Your task to perform on an android device: Show me productivity apps on the Play Store Image 0: 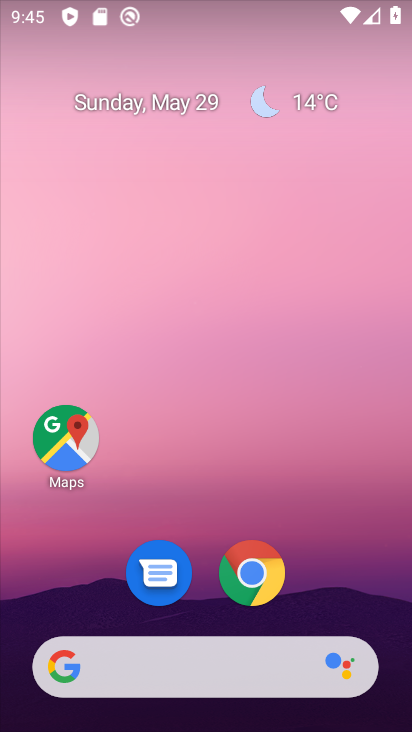
Step 0: drag from (187, 595) to (228, 8)
Your task to perform on an android device: Show me productivity apps on the Play Store Image 1: 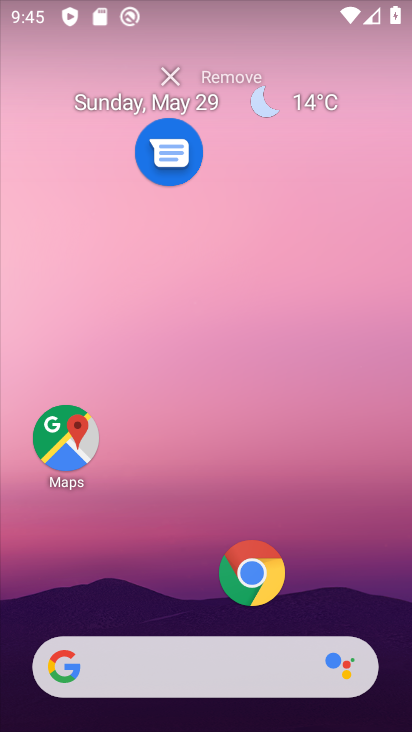
Step 1: drag from (194, 525) to (210, 93)
Your task to perform on an android device: Show me productivity apps on the Play Store Image 2: 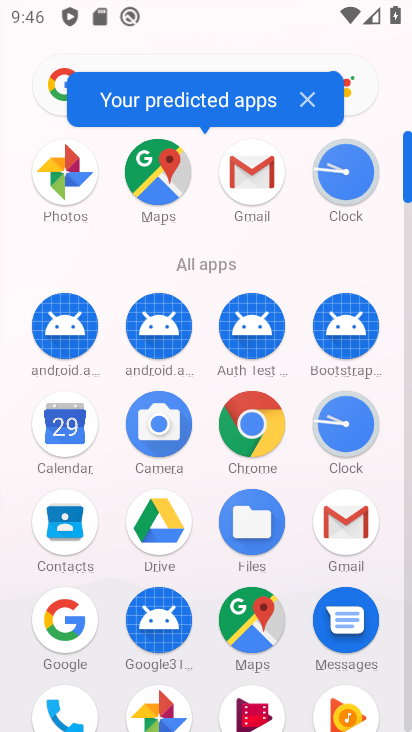
Step 2: drag from (194, 674) to (174, 99)
Your task to perform on an android device: Show me productivity apps on the Play Store Image 3: 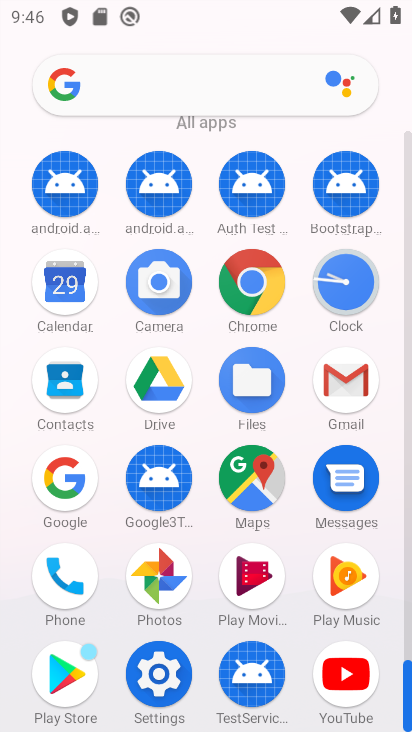
Step 3: click (37, 676)
Your task to perform on an android device: Show me productivity apps on the Play Store Image 4: 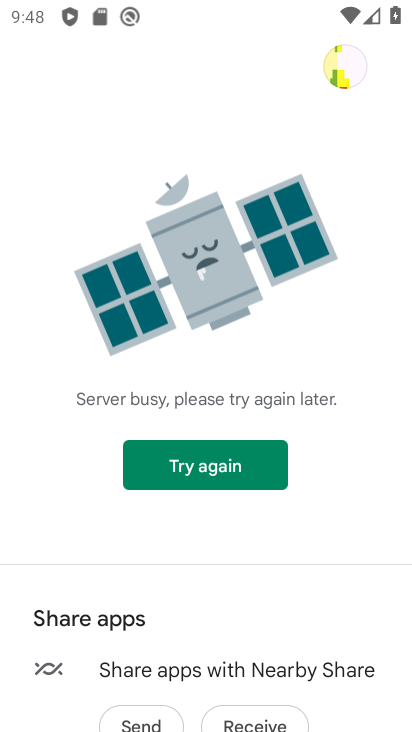
Step 4: task complete